Your task to perform on an android device: open app "Facebook Lite" (install if not already installed) Image 0: 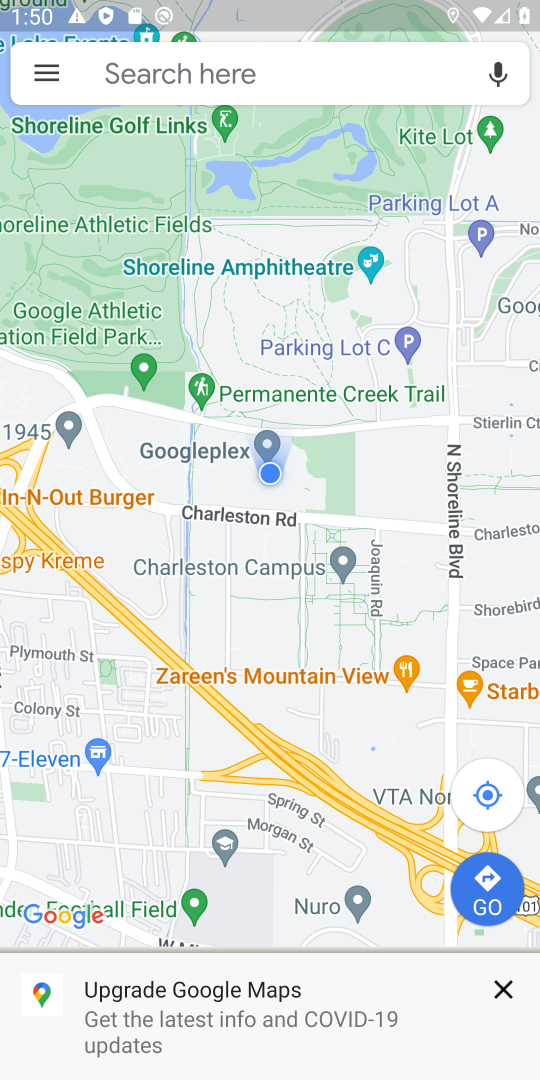
Step 0: press home button
Your task to perform on an android device: open app "Facebook Lite" (install if not already installed) Image 1: 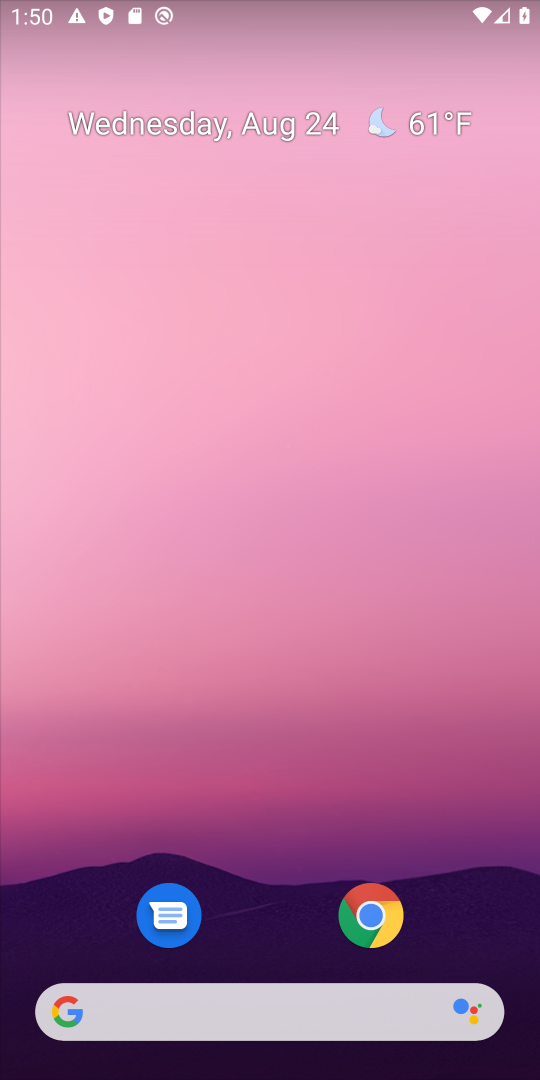
Step 1: drag from (321, 753) to (372, 297)
Your task to perform on an android device: open app "Facebook Lite" (install if not already installed) Image 2: 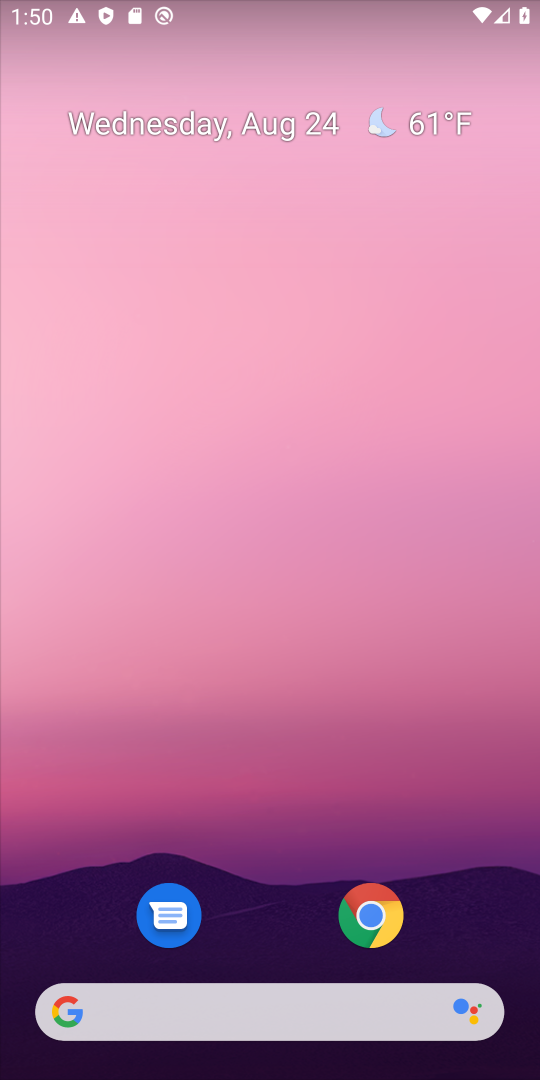
Step 2: drag from (274, 818) to (307, 140)
Your task to perform on an android device: open app "Facebook Lite" (install if not already installed) Image 3: 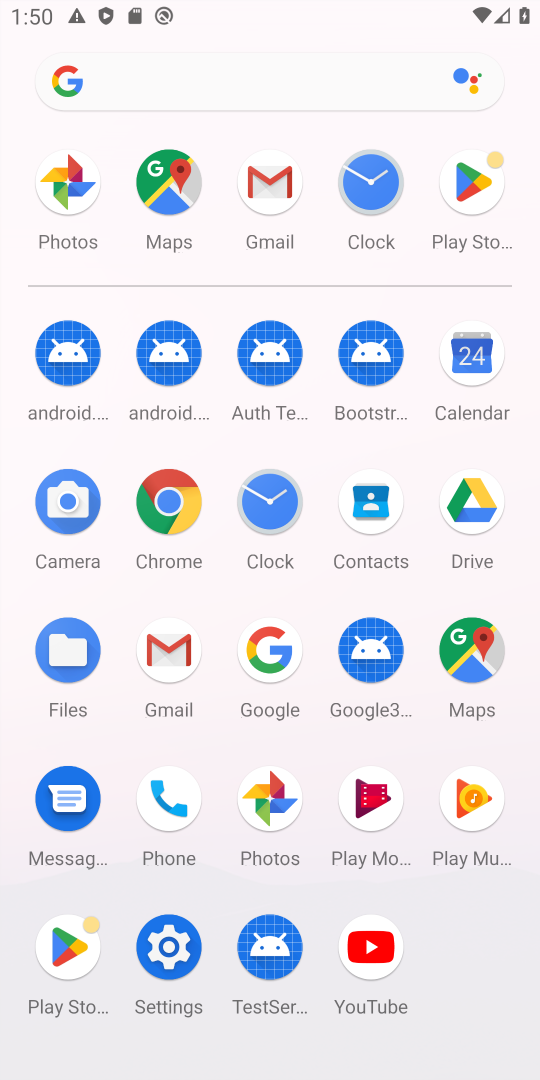
Step 3: click (471, 192)
Your task to perform on an android device: open app "Facebook Lite" (install if not already installed) Image 4: 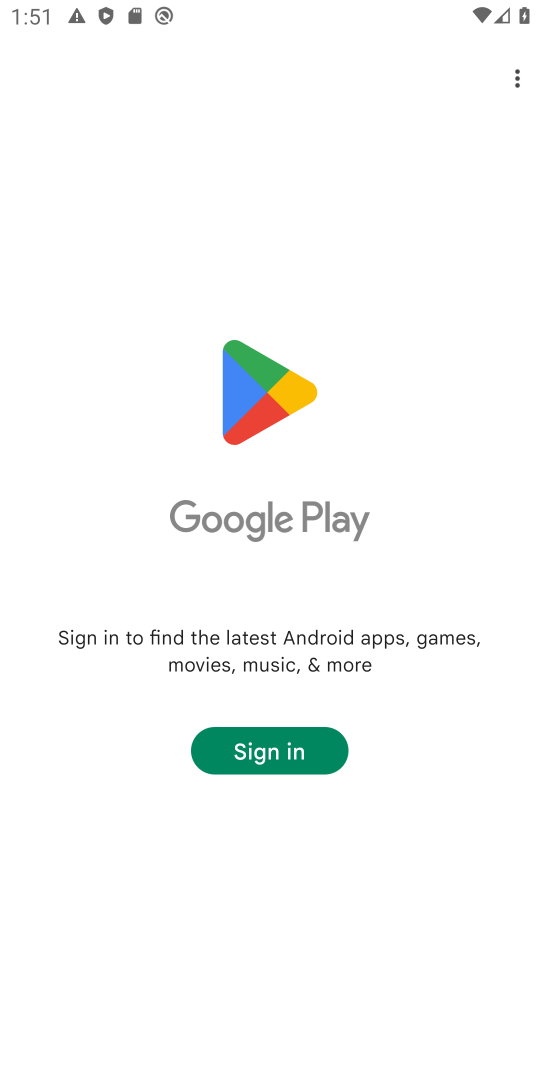
Step 4: task complete